Your task to perform on an android device: Open calendar and show me the third week of next month Image 0: 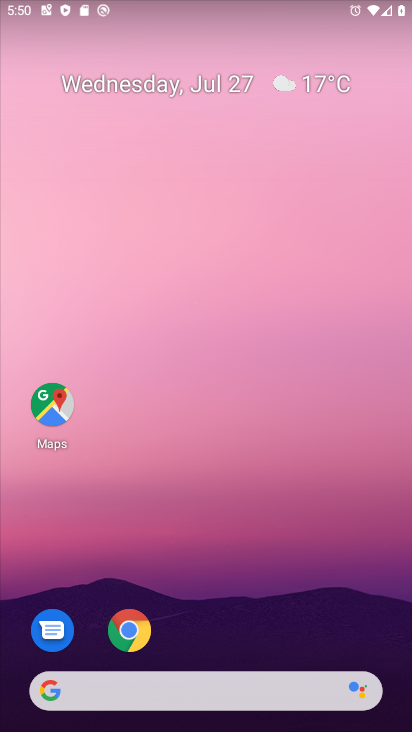
Step 0: drag from (225, 639) to (248, 200)
Your task to perform on an android device: Open calendar and show me the third week of next month Image 1: 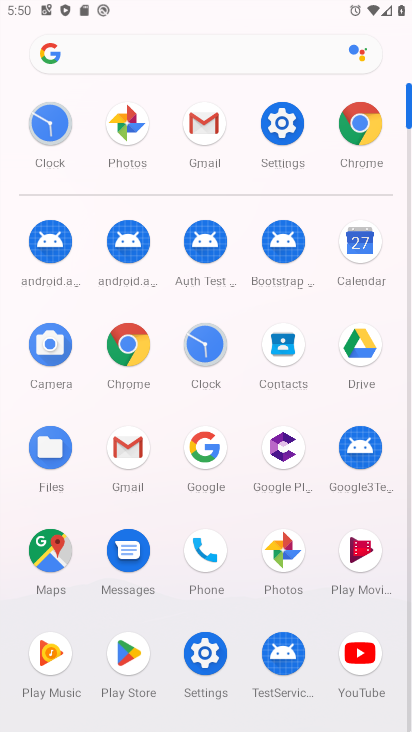
Step 1: click (352, 222)
Your task to perform on an android device: Open calendar and show me the third week of next month Image 2: 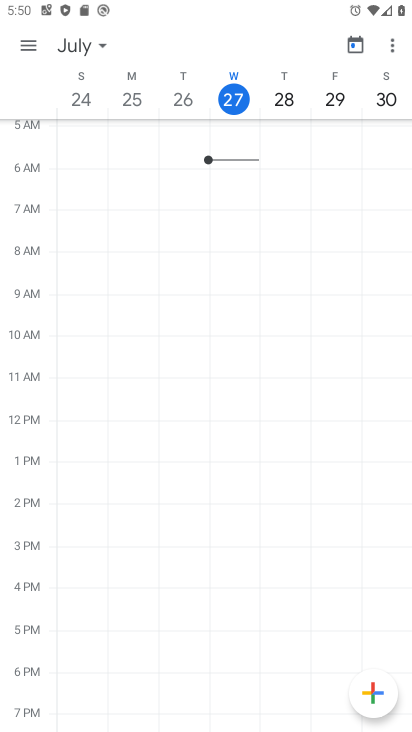
Step 2: click (98, 38)
Your task to perform on an android device: Open calendar and show me the third week of next month Image 3: 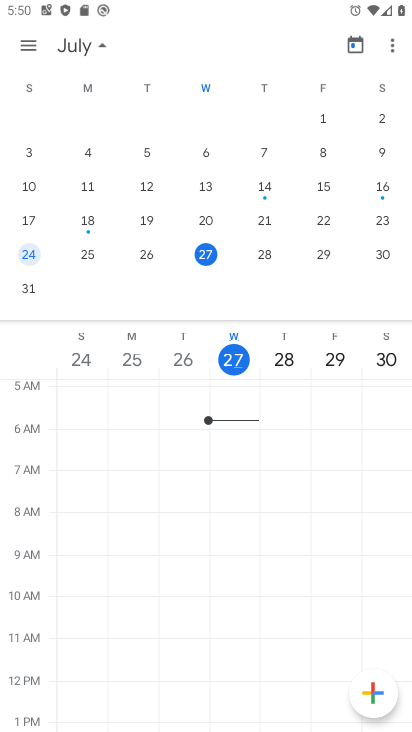
Step 3: drag from (265, 200) to (0, 172)
Your task to perform on an android device: Open calendar and show me the third week of next month Image 4: 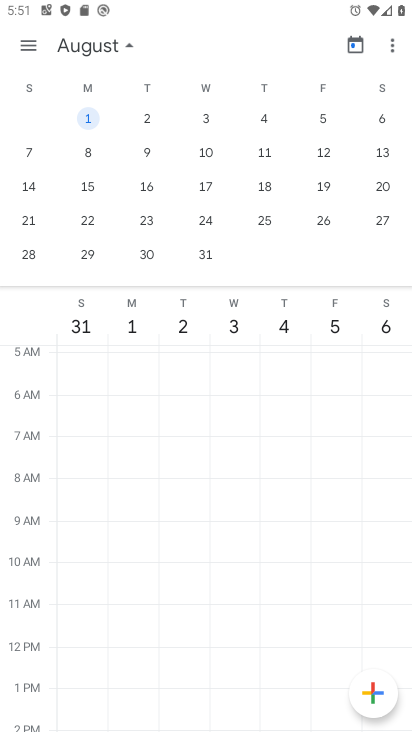
Step 4: click (23, 182)
Your task to perform on an android device: Open calendar and show me the third week of next month Image 5: 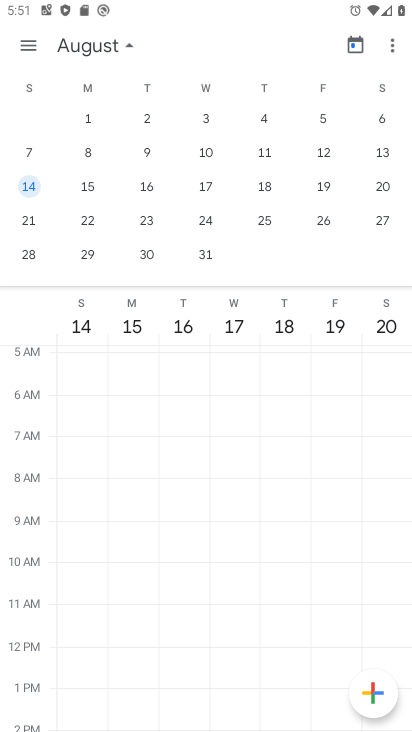
Step 5: task complete